Your task to perform on an android device: Open battery settings Image 0: 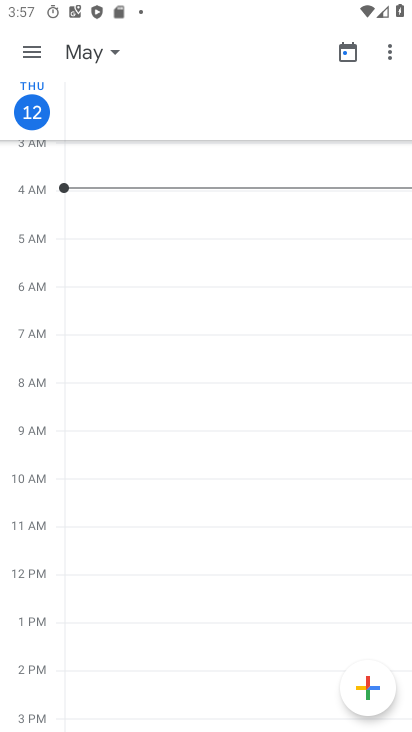
Step 0: press home button
Your task to perform on an android device: Open battery settings Image 1: 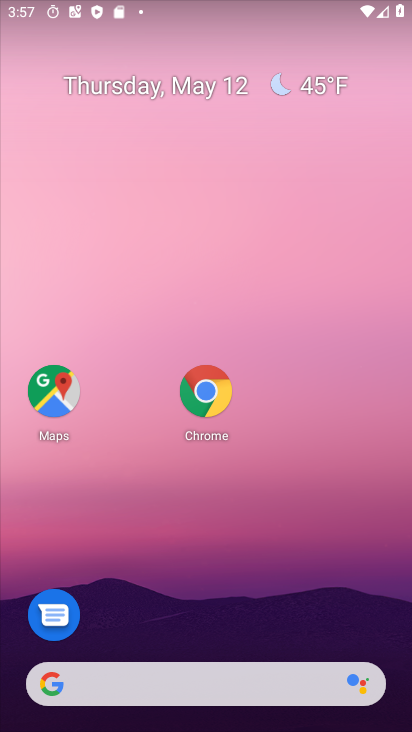
Step 1: drag from (215, 586) to (210, 76)
Your task to perform on an android device: Open battery settings Image 2: 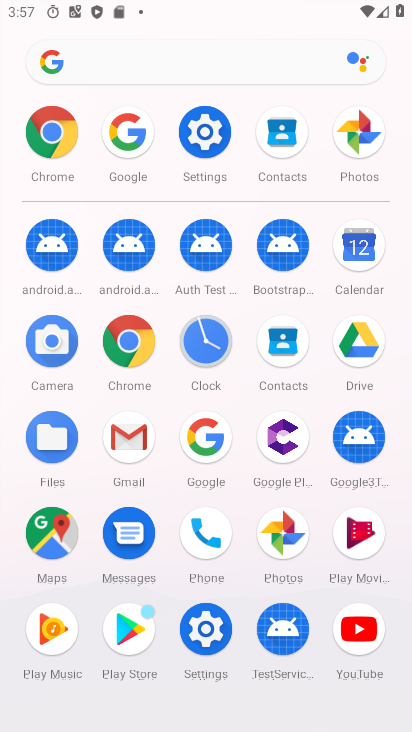
Step 2: click (205, 137)
Your task to perform on an android device: Open battery settings Image 3: 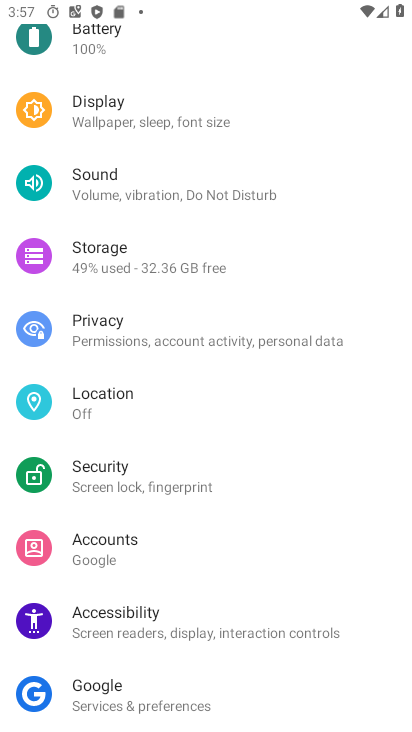
Step 3: drag from (156, 621) to (190, 635)
Your task to perform on an android device: Open battery settings Image 4: 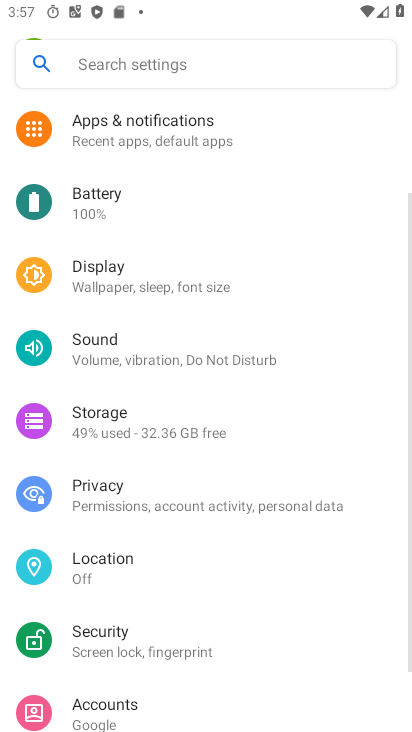
Step 4: click (171, 324)
Your task to perform on an android device: Open battery settings Image 5: 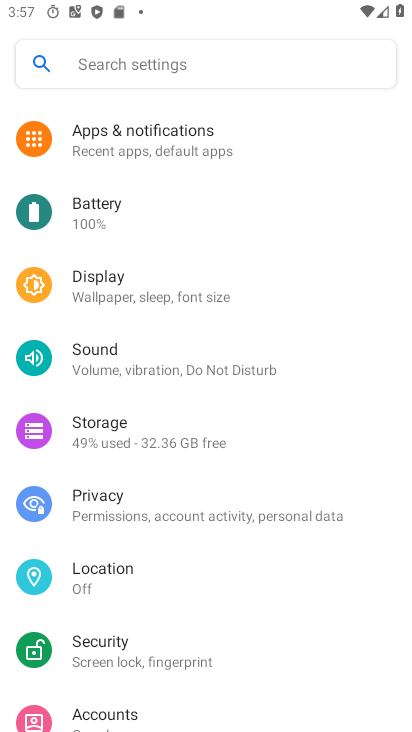
Step 5: click (118, 213)
Your task to perform on an android device: Open battery settings Image 6: 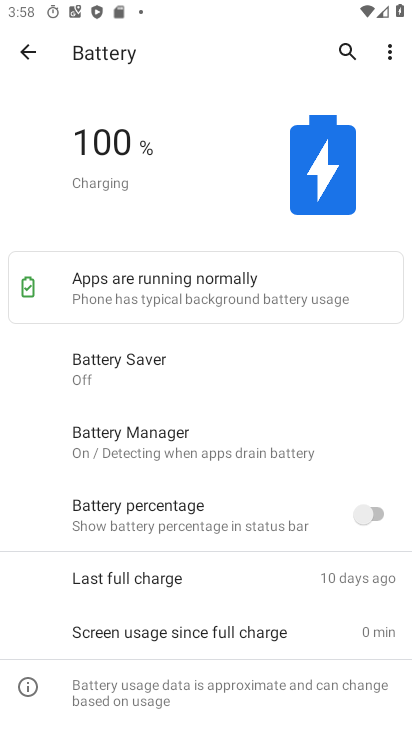
Step 6: task complete